Your task to perform on an android device: change alarm snooze length Image 0: 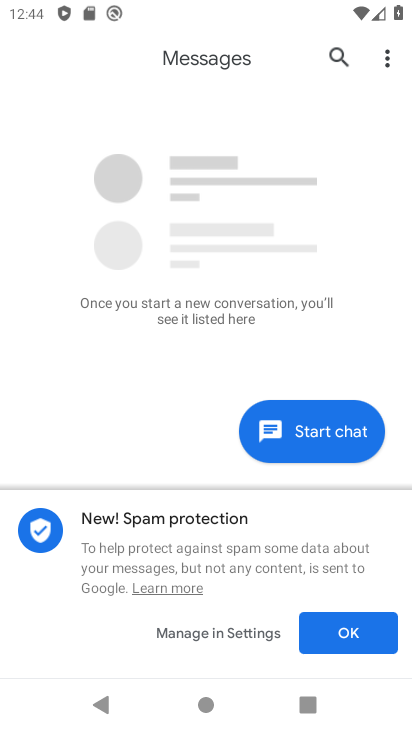
Step 0: press home button
Your task to perform on an android device: change alarm snooze length Image 1: 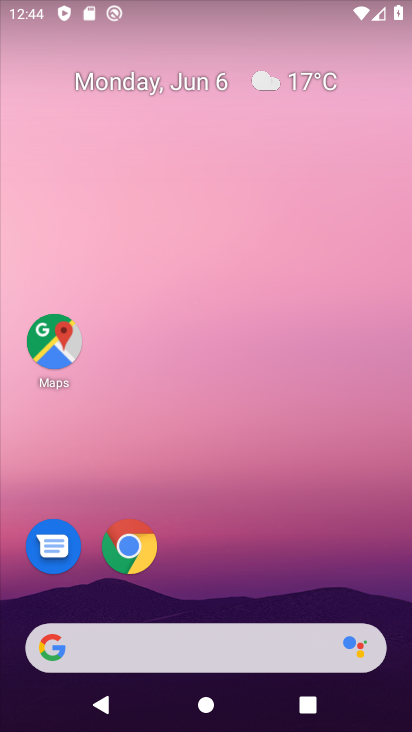
Step 1: drag from (397, 693) to (350, 85)
Your task to perform on an android device: change alarm snooze length Image 2: 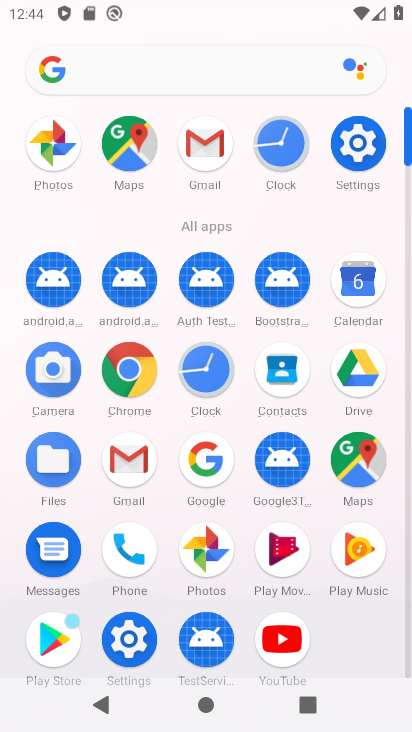
Step 2: click (191, 144)
Your task to perform on an android device: change alarm snooze length Image 3: 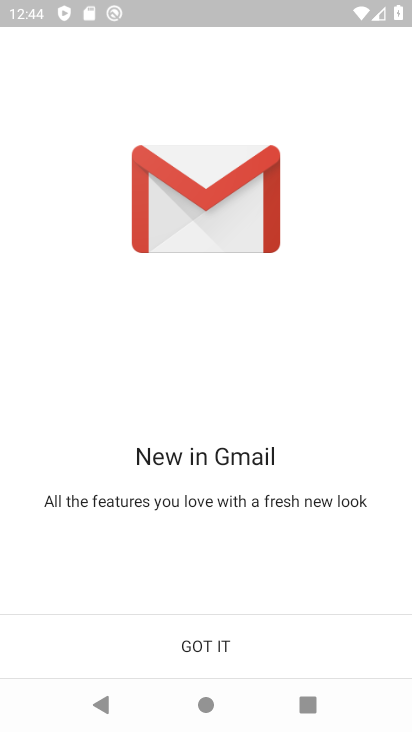
Step 3: click (217, 633)
Your task to perform on an android device: change alarm snooze length Image 4: 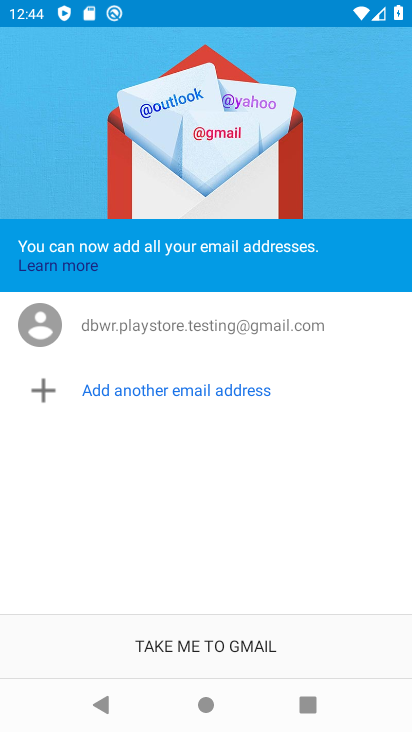
Step 4: click (217, 633)
Your task to perform on an android device: change alarm snooze length Image 5: 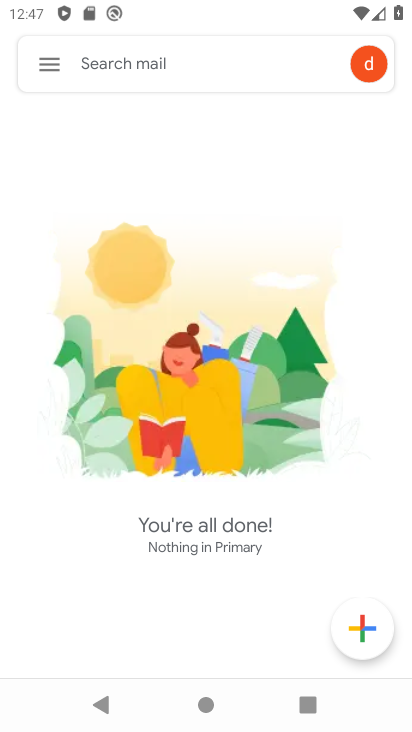
Step 5: click (47, 73)
Your task to perform on an android device: change alarm snooze length Image 6: 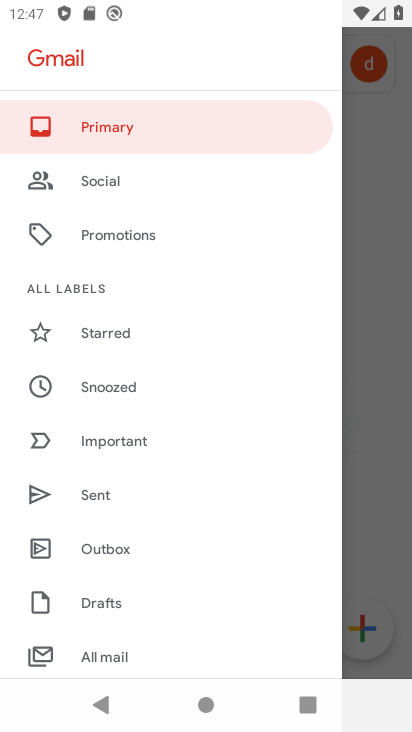
Step 6: press back button
Your task to perform on an android device: change alarm snooze length Image 7: 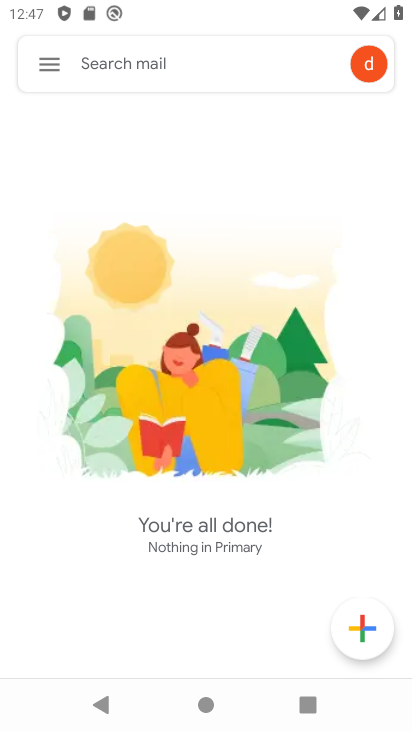
Step 7: press back button
Your task to perform on an android device: change alarm snooze length Image 8: 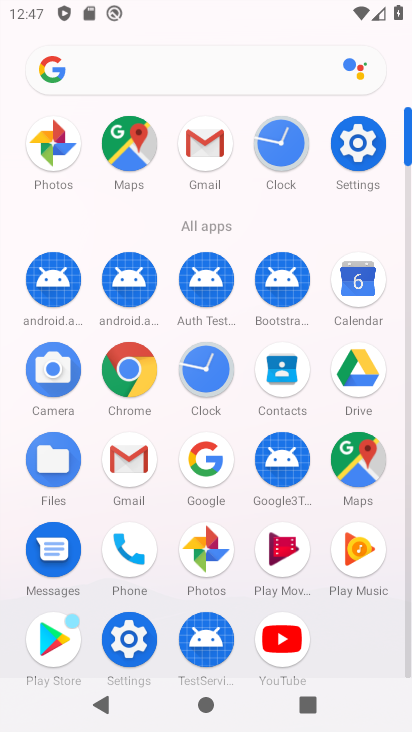
Step 8: click (213, 377)
Your task to perform on an android device: change alarm snooze length Image 9: 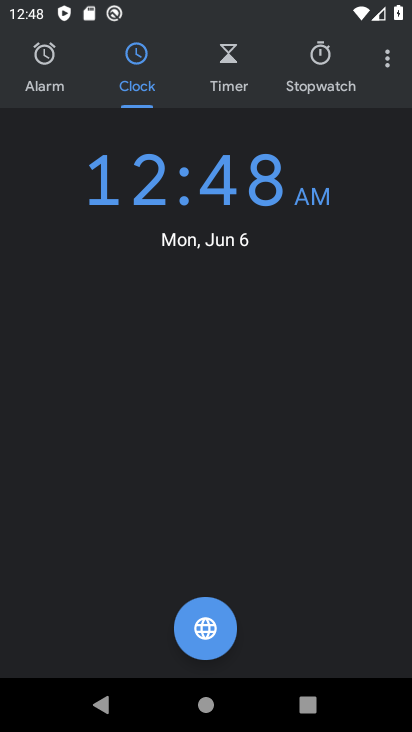
Step 9: click (389, 62)
Your task to perform on an android device: change alarm snooze length Image 10: 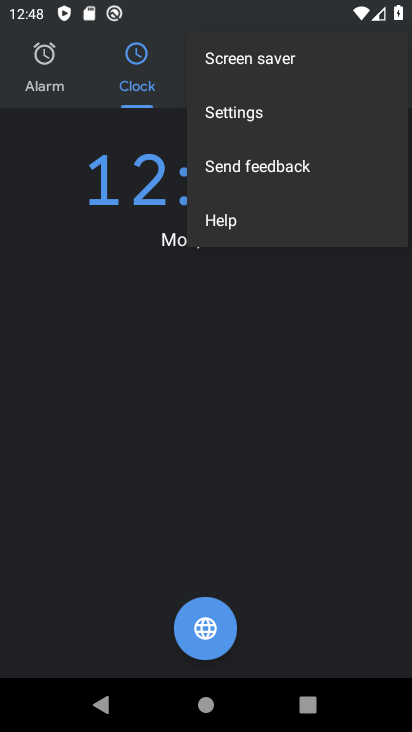
Step 10: click (227, 113)
Your task to perform on an android device: change alarm snooze length Image 11: 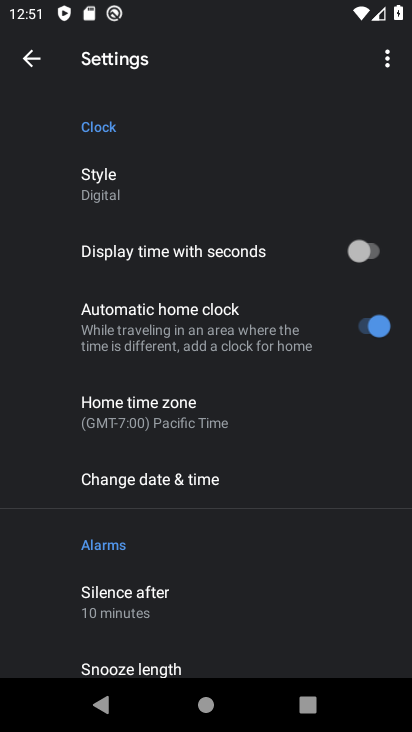
Step 11: drag from (209, 550) to (197, 263)
Your task to perform on an android device: change alarm snooze length Image 12: 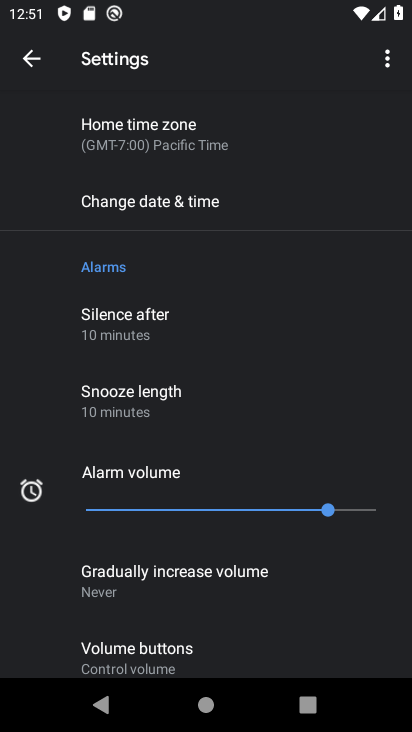
Step 12: click (113, 413)
Your task to perform on an android device: change alarm snooze length Image 13: 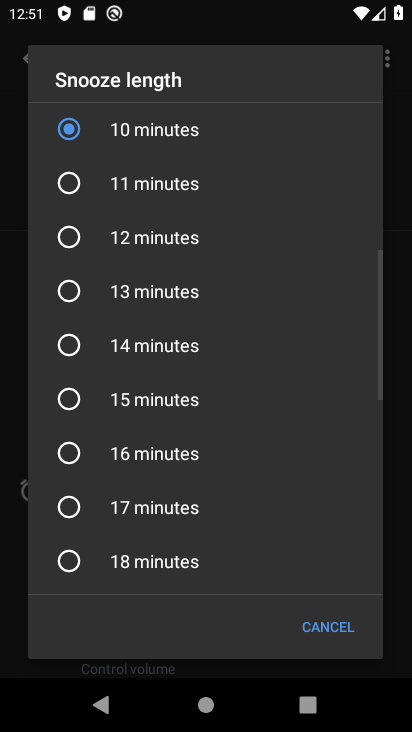
Step 13: click (62, 240)
Your task to perform on an android device: change alarm snooze length Image 14: 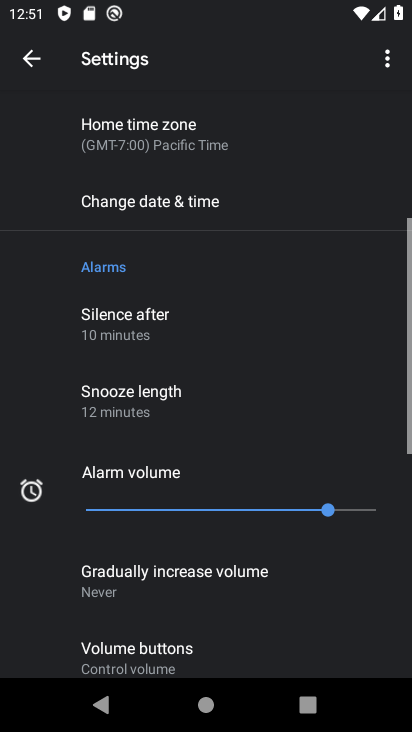
Step 14: task complete